Your task to perform on an android device: Show me productivity apps on the Play Store Image 0: 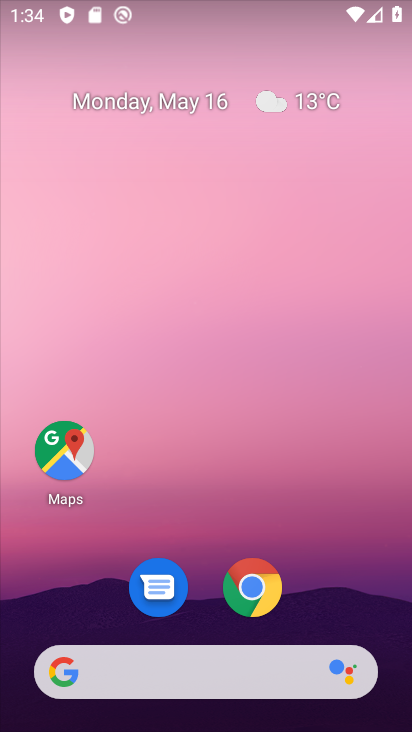
Step 0: drag from (183, 646) to (188, 405)
Your task to perform on an android device: Show me productivity apps on the Play Store Image 1: 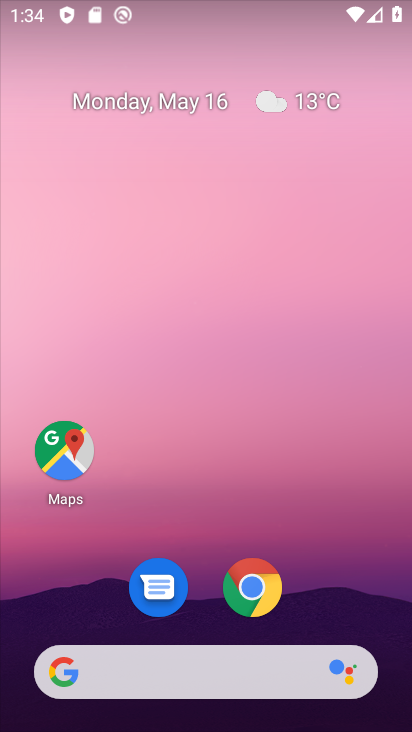
Step 1: drag from (243, 646) to (237, 286)
Your task to perform on an android device: Show me productivity apps on the Play Store Image 2: 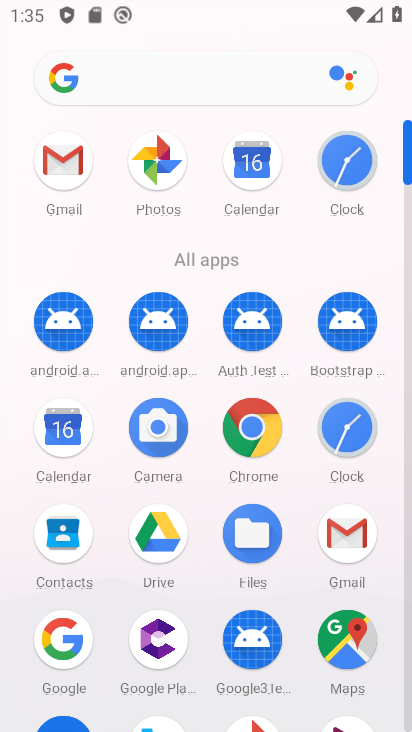
Step 2: drag from (200, 678) to (210, 338)
Your task to perform on an android device: Show me productivity apps on the Play Store Image 3: 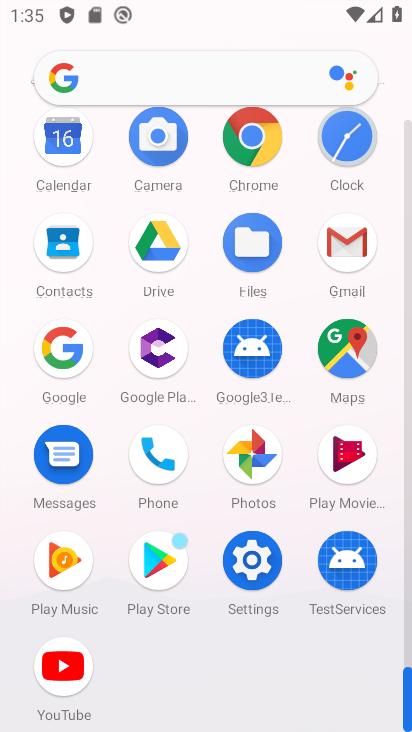
Step 3: click (146, 574)
Your task to perform on an android device: Show me productivity apps on the Play Store Image 4: 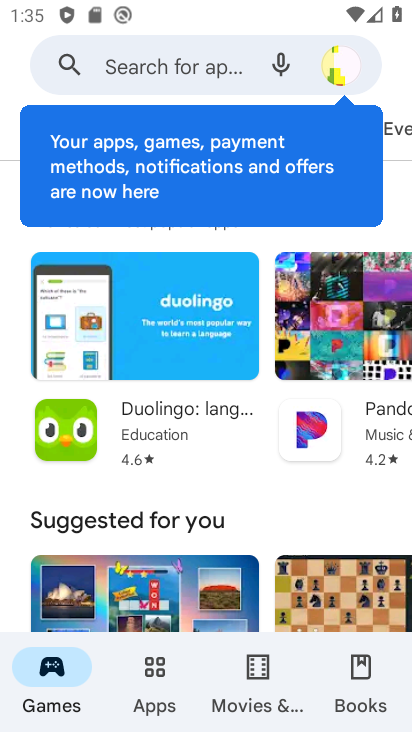
Step 4: click (165, 671)
Your task to perform on an android device: Show me productivity apps on the Play Store Image 5: 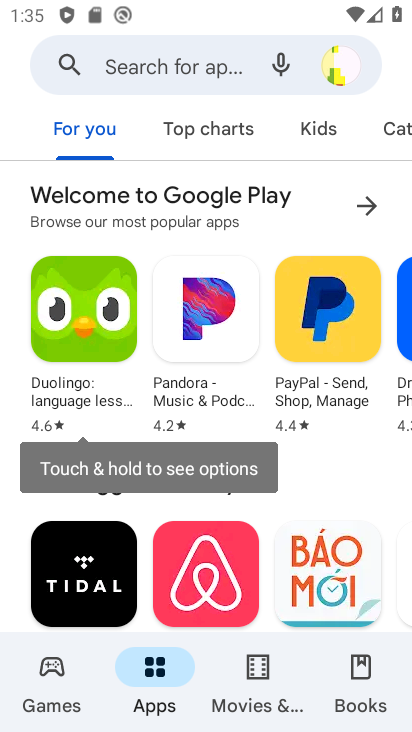
Step 5: task complete